Your task to perform on an android device: Open network settings Image 0: 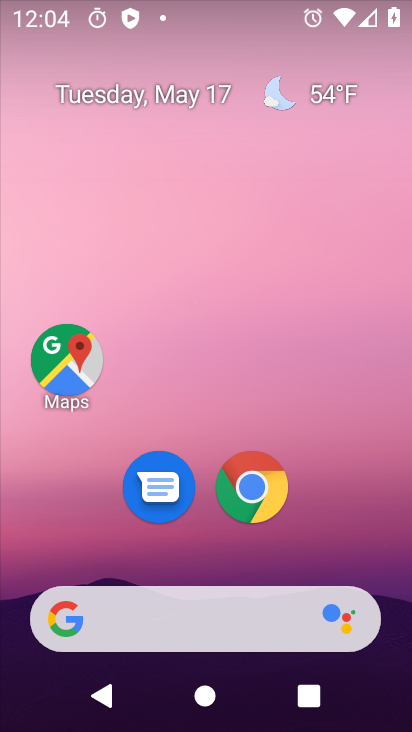
Step 0: drag from (204, 563) to (271, 61)
Your task to perform on an android device: Open network settings Image 1: 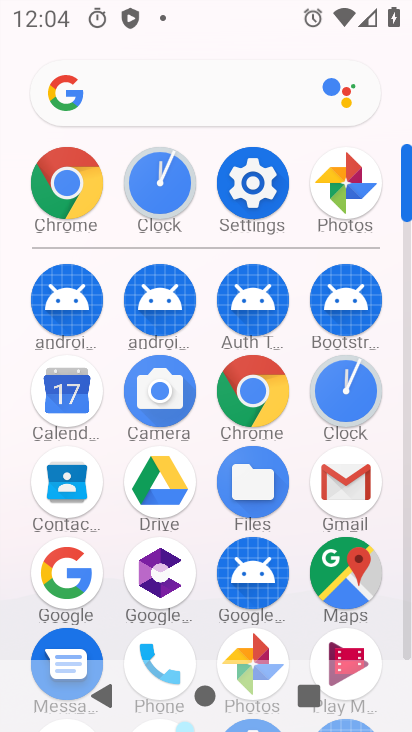
Step 1: click (246, 190)
Your task to perform on an android device: Open network settings Image 2: 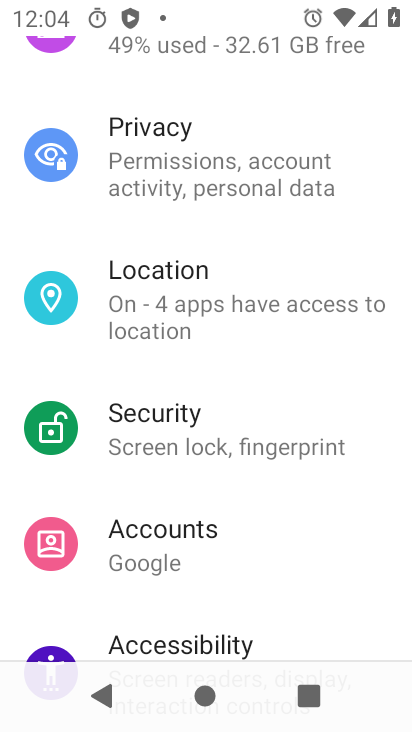
Step 2: drag from (230, 201) to (219, 666)
Your task to perform on an android device: Open network settings Image 3: 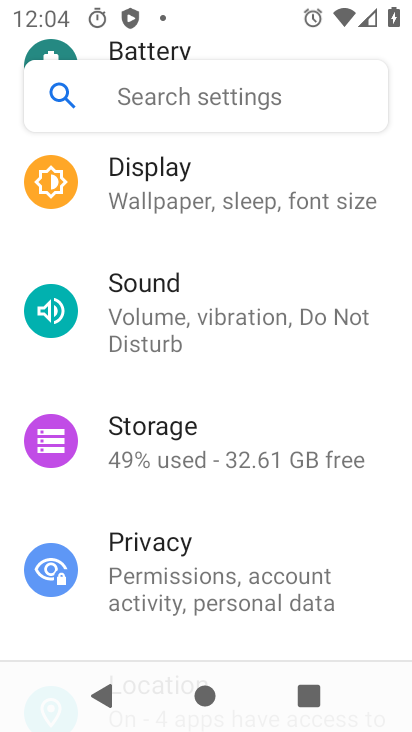
Step 3: drag from (196, 262) to (191, 708)
Your task to perform on an android device: Open network settings Image 4: 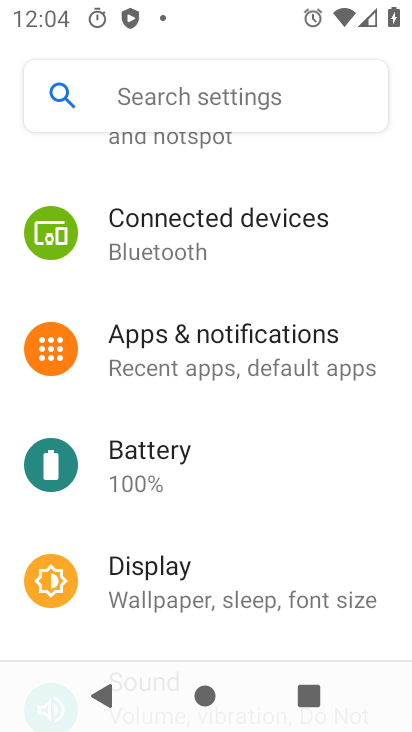
Step 4: drag from (208, 273) to (182, 655)
Your task to perform on an android device: Open network settings Image 5: 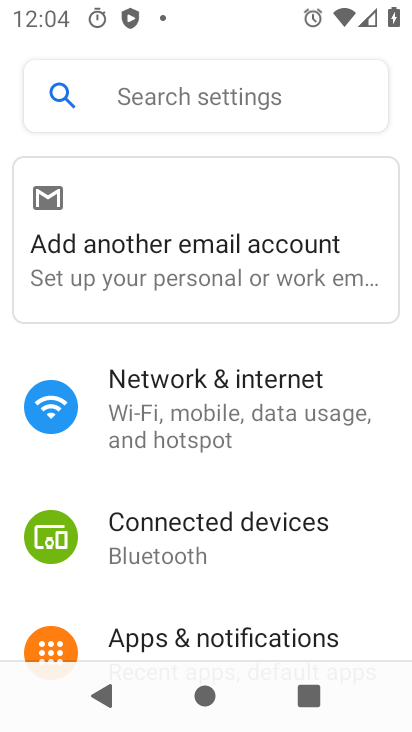
Step 5: click (184, 405)
Your task to perform on an android device: Open network settings Image 6: 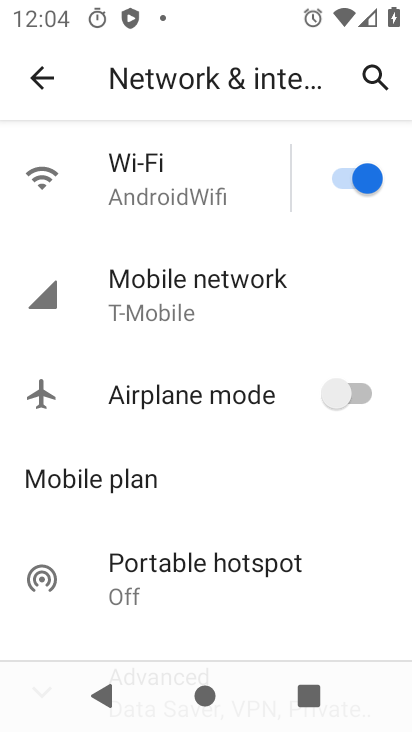
Step 6: task complete